Your task to perform on an android device: Open display settings Image 0: 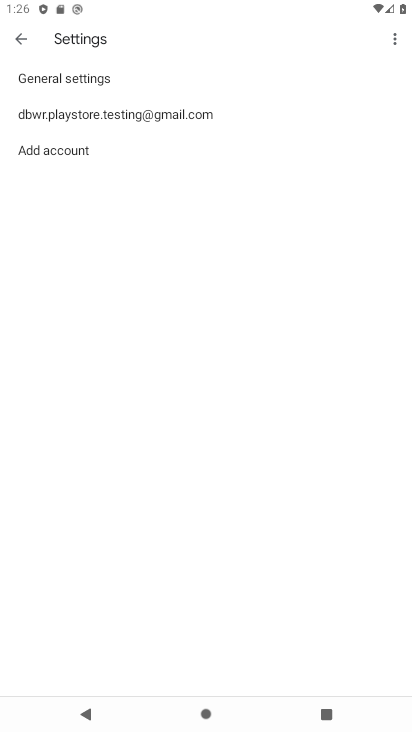
Step 0: press home button
Your task to perform on an android device: Open display settings Image 1: 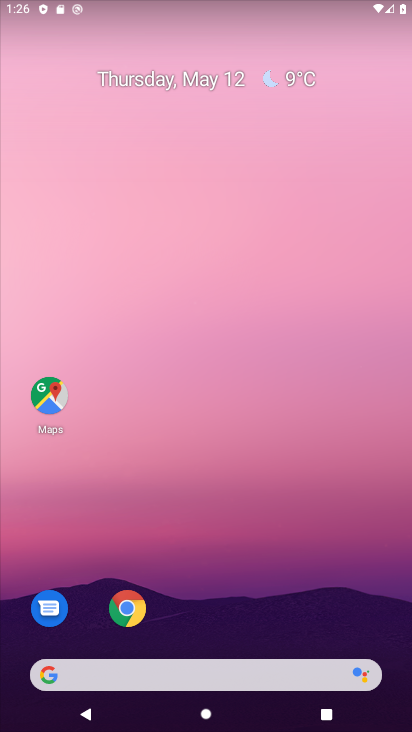
Step 1: drag from (181, 623) to (207, 74)
Your task to perform on an android device: Open display settings Image 2: 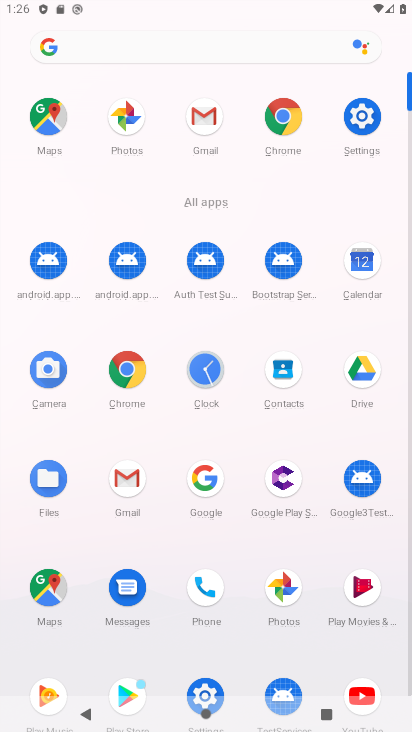
Step 2: click (354, 129)
Your task to perform on an android device: Open display settings Image 3: 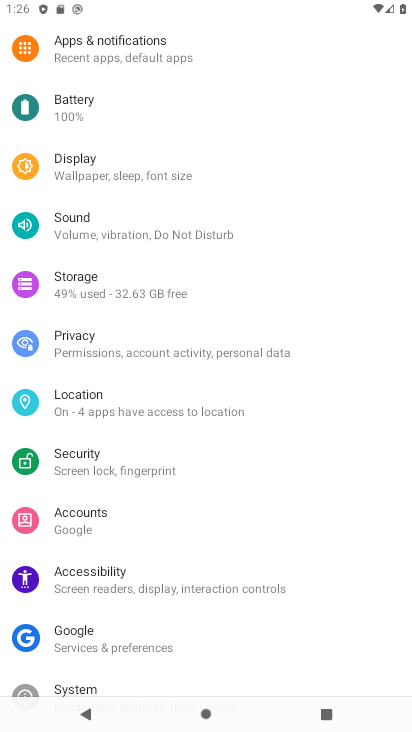
Step 3: click (206, 171)
Your task to perform on an android device: Open display settings Image 4: 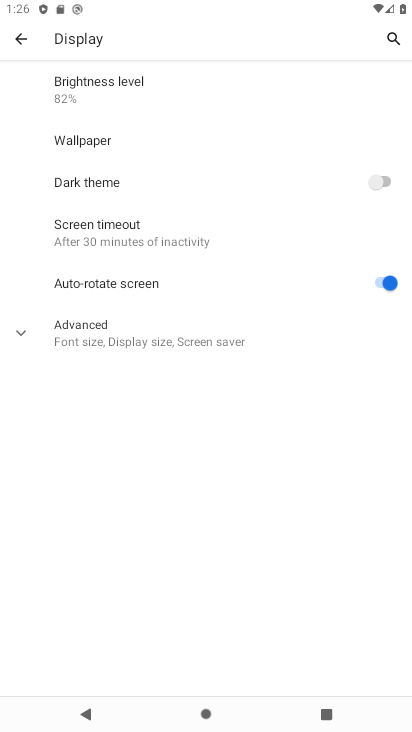
Step 4: click (111, 338)
Your task to perform on an android device: Open display settings Image 5: 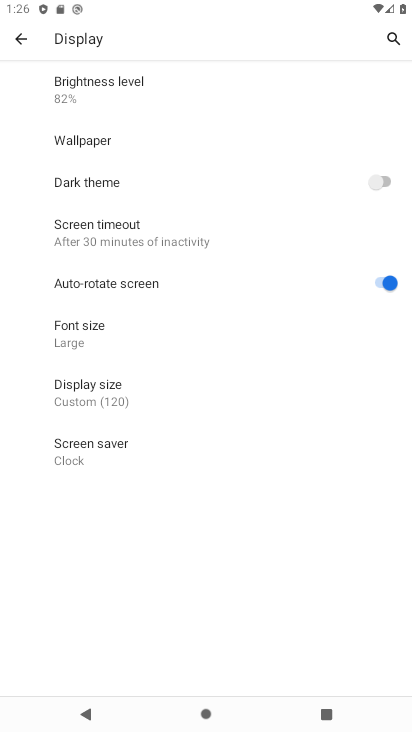
Step 5: task complete